Your task to perform on an android device: read, delete, or share a saved page in the chrome app Image 0: 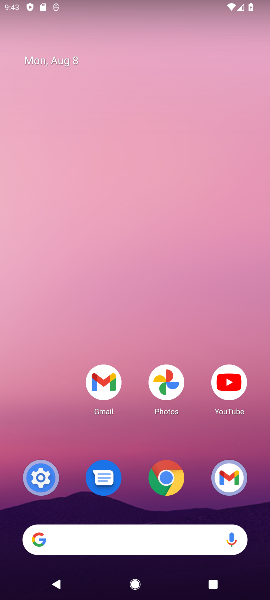
Step 0: drag from (195, 438) to (232, 40)
Your task to perform on an android device: read, delete, or share a saved page in the chrome app Image 1: 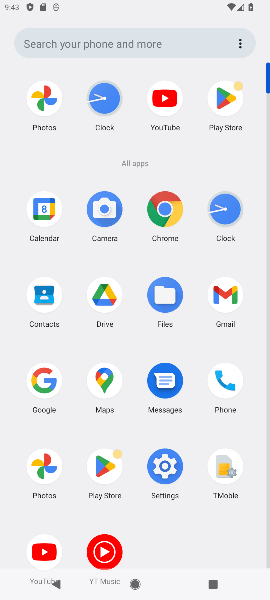
Step 1: click (159, 209)
Your task to perform on an android device: read, delete, or share a saved page in the chrome app Image 2: 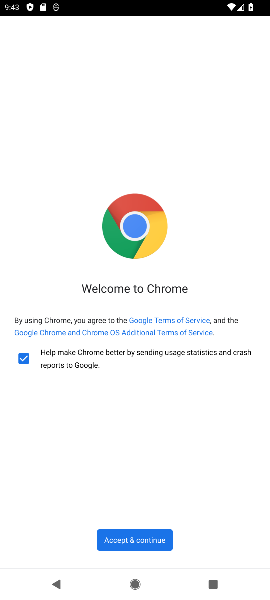
Step 2: click (145, 536)
Your task to perform on an android device: read, delete, or share a saved page in the chrome app Image 3: 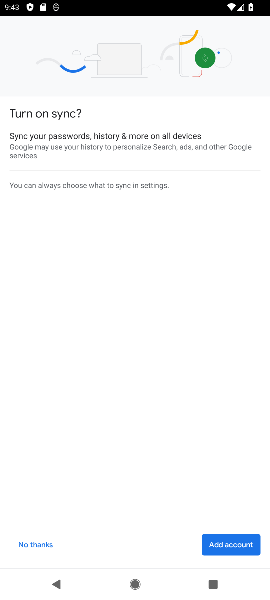
Step 3: click (32, 541)
Your task to perform on an android device: read, delete, or share a saved page in the chrome app Image 4: 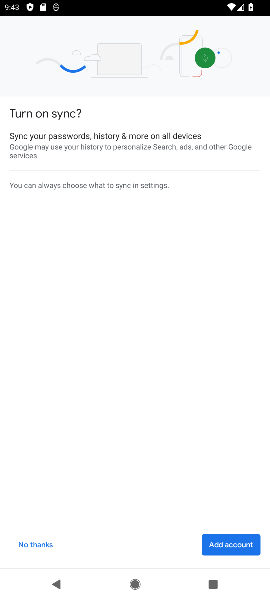
Step 4: click (38, 542)
Your task to perform on an android device: read, delete, or share a saved page in the chrome app Image 5: 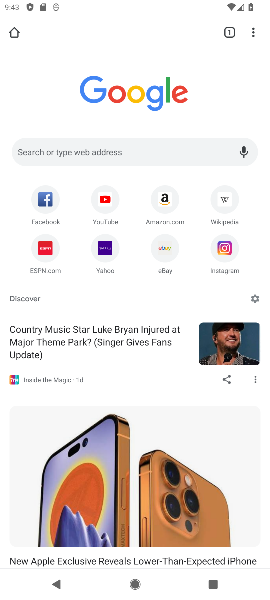
Step 5: task complete